Your task to perform on an android device: delete the emails in spam in the gmail app Image 0: 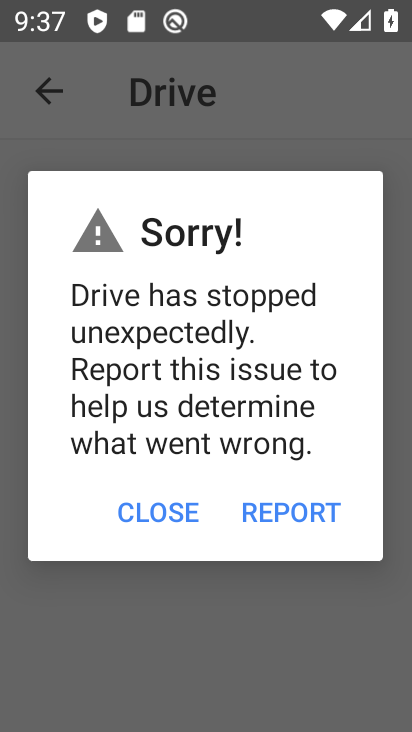
Step 0: click (154, 503)
Your task to perform on an android device: delete the emails in spam in the gmail app Image 1: 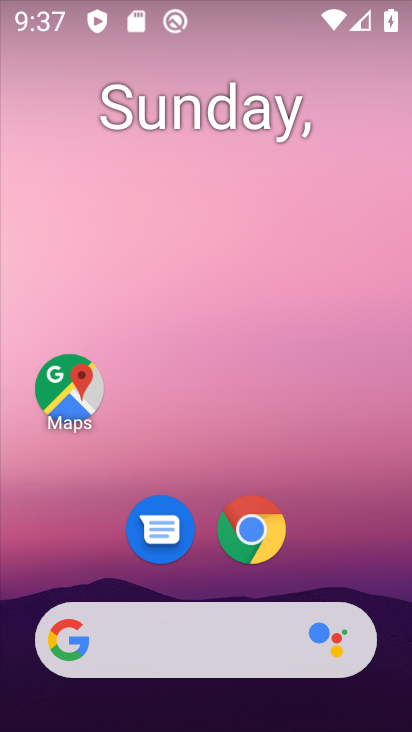
Step 1: drag from (340, 575) to (260, 62)
Your task to perform on an android device: delete the emails in spam in the gmail app Image 2: 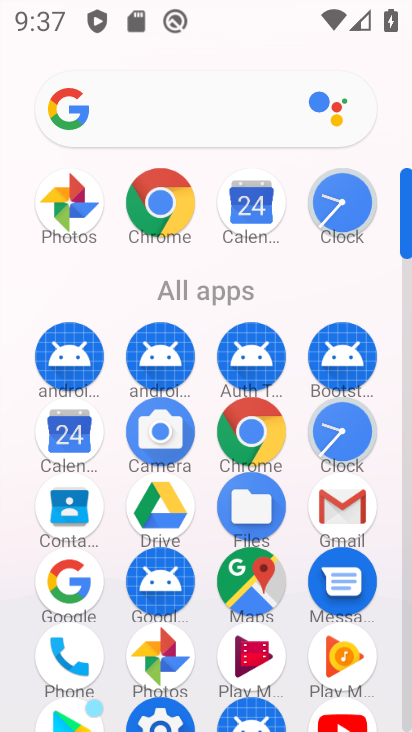
Step 2: click (342, 506)
Your task to perform on an android device: delete the emails in spam in the gmail app Image 3: 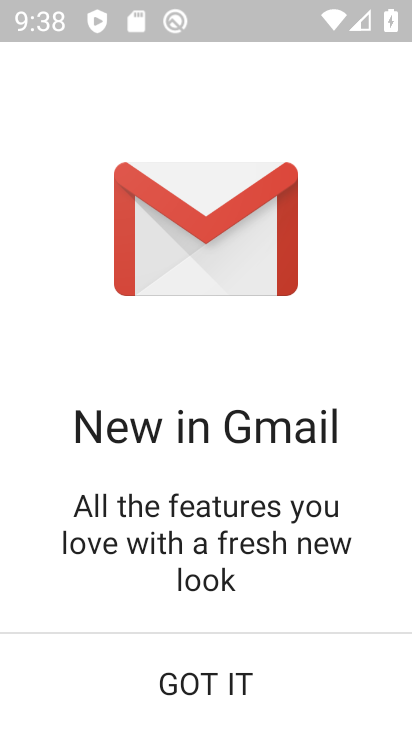
Step 3: click (214, 653)
Your task to perform on an android device: delete the emails in spam in the gmail app Image 4: 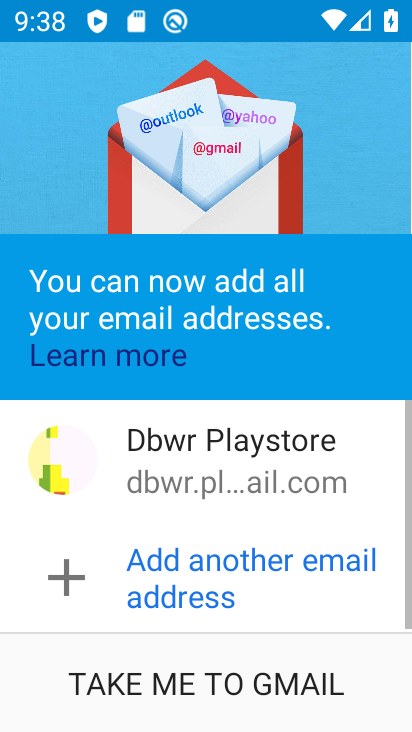
Step 4: click (223, 682)
Your task to perform on an android device: delete the emails in spam in the gmail app Image 5: 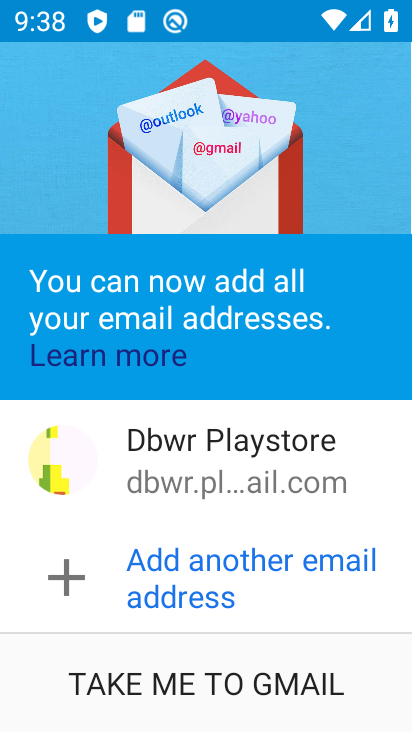
Step 5: click (223, 682)
Your task to perform on an android device: delete the emails in spam in the gmail app Image 6: 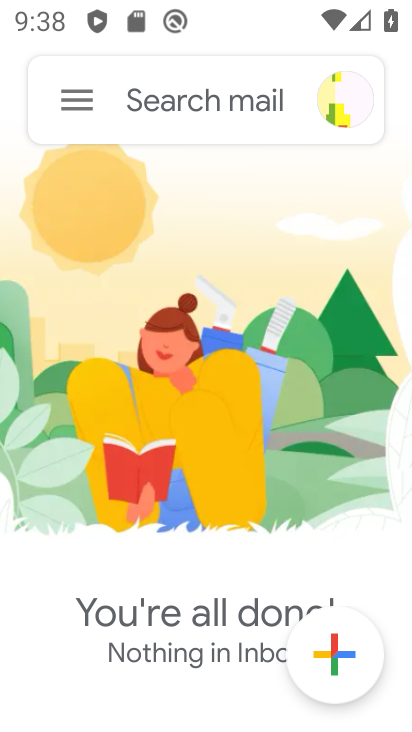
Step 6: click (68, 104)
Your task to perform on an android device: delete the emails in spam in the gmail app Image 7: 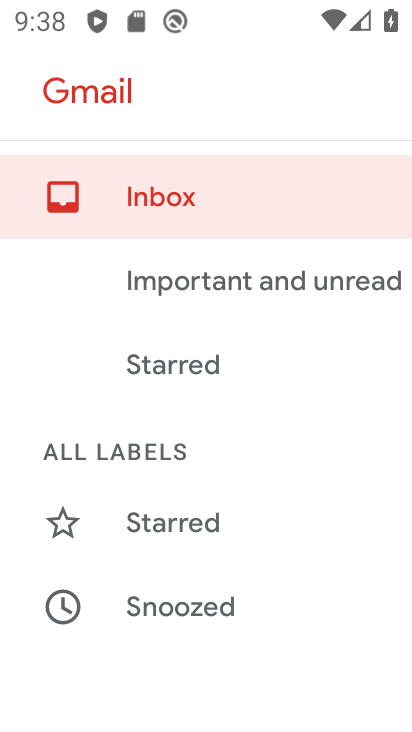
Step 7: drag from (282, 621) to (208, 254)
Your task to perform on an android device: delete the emails in spam in the gmail app Image 8: 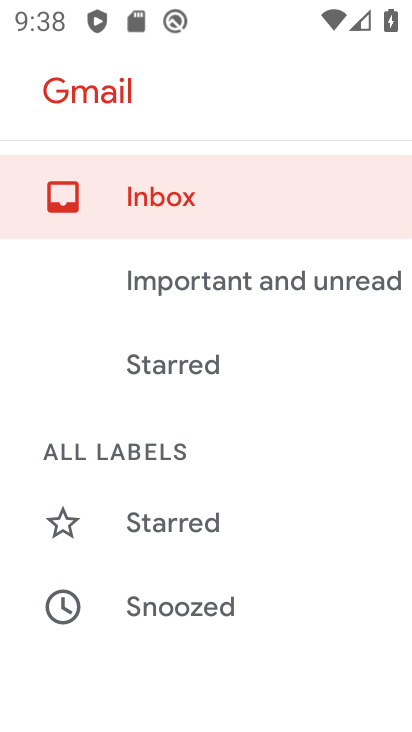
Step 8: drag from (215, 563) to (203, 69)
Your task to perform on an android device: delete the emails in spam in the gmail app Image 9: 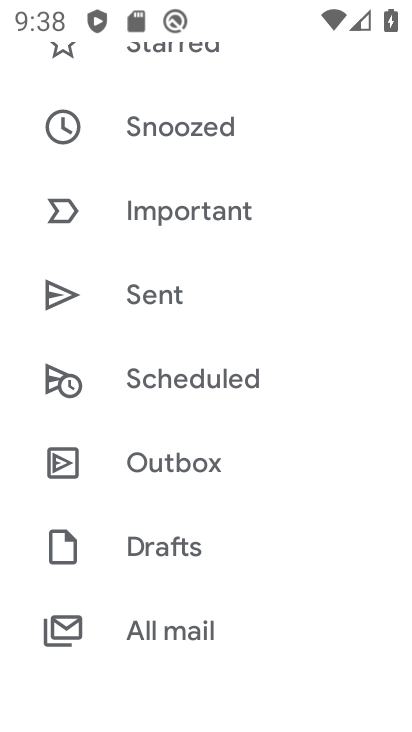
Step 9: drag from (165, 574) to (170, 224)
Your task to perform on an android device: delete the emails in spam in the gmail app Image 10: 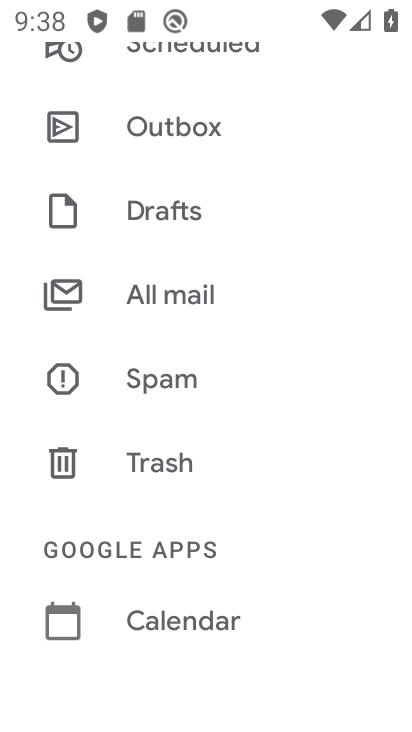
Step 10: click (169, 376)
Your task to perform on an android device: delete the emails in spam in the gmail app Image 11: 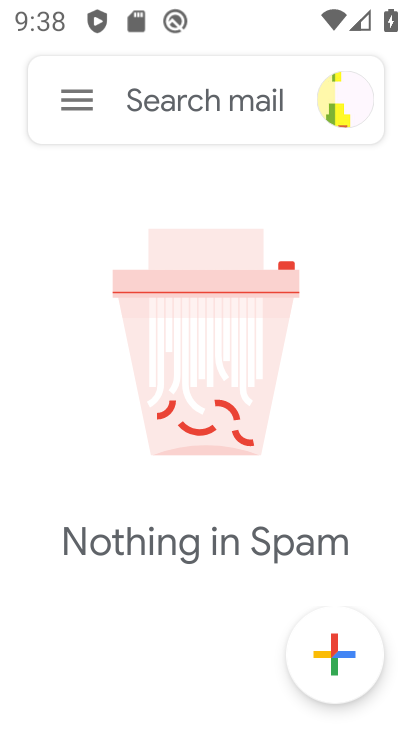
Step 11: task complete